Your task to perform on an android device: Go to CNN.com Image 0: 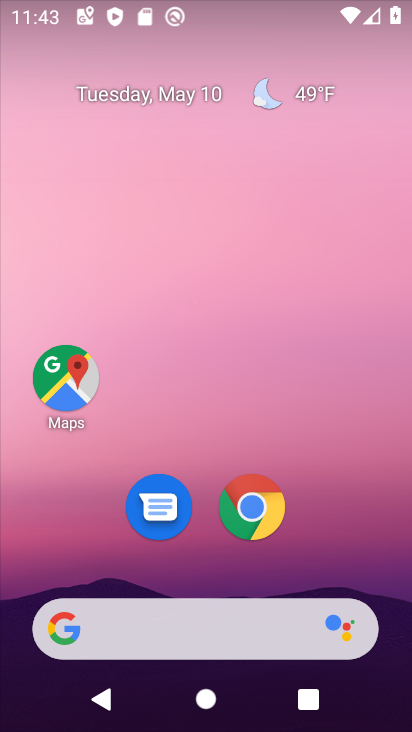
Step 0: press home button
Your task to perform on an android device: Go to CNN.com Image 1: 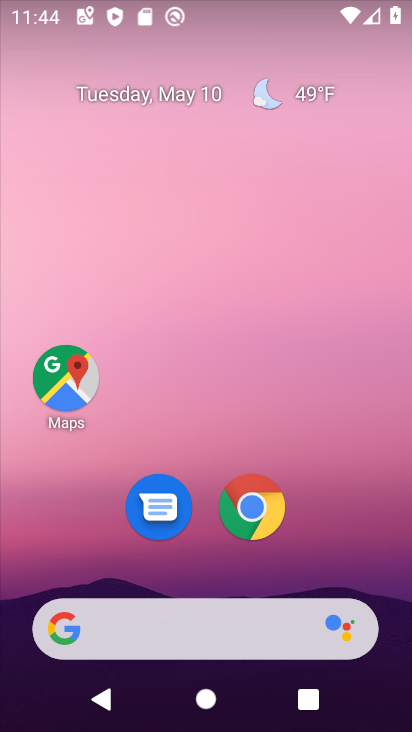
Step 1: drag from (203, 558) to (222, 64)
Your task to perform on an android device: Go to CNN.com Image 2: 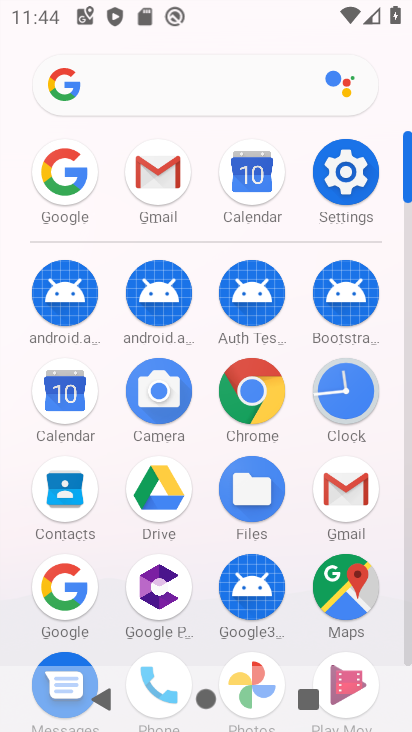
Step 2: click (67, 584)
Your task to perform on an android device: Go to CNN.com Image 3: 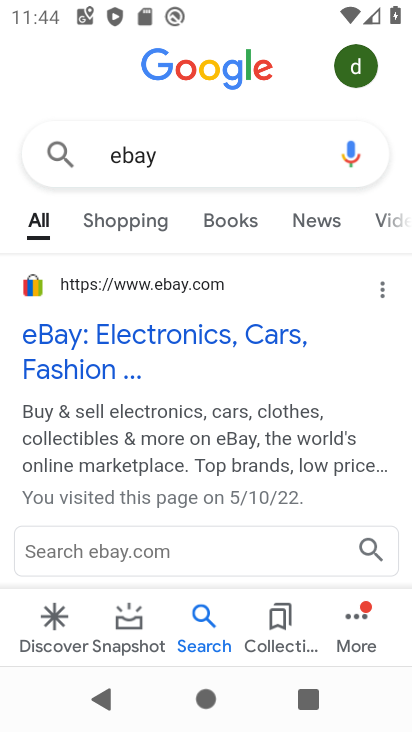
Step 3: click (207, 164)
Your task to perform on an android device: Go to CNN.com Image 4: 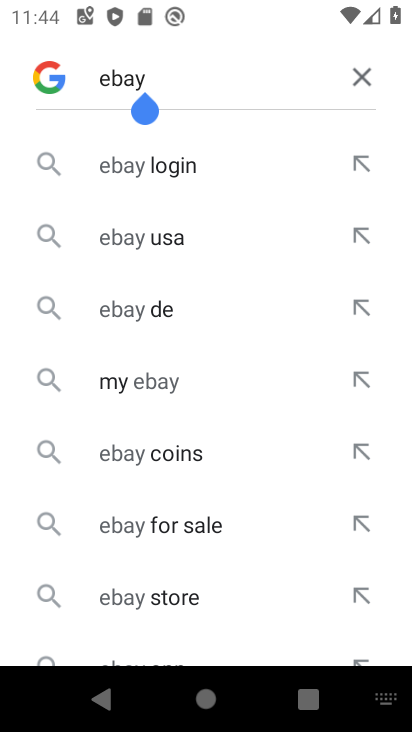
Step 4: click (359, 81)
Your task to perform on an android device: Go to CNN.com Image 5: 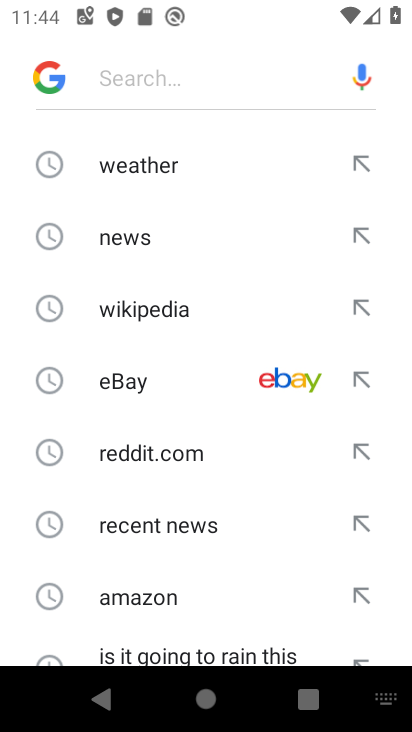
Step 5: drag from (164, 601) to (259, 95)
Your task to perform on an android device: Go to CNN.com Image 6: 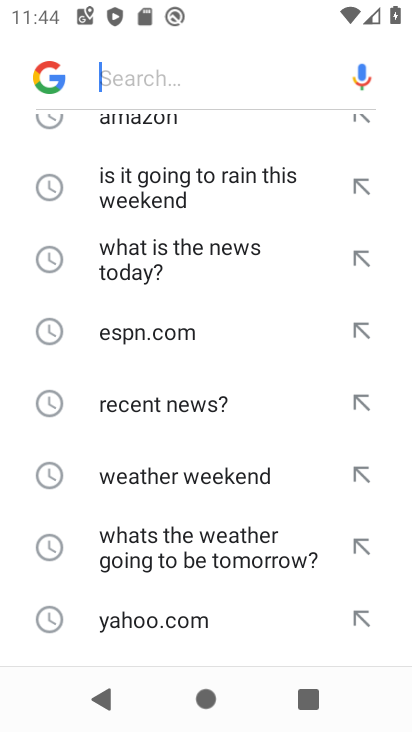
Step 6: drag from (209, 509) to (248, 161)
Your task to perform on an android device: Go to CNN.com Image 7: 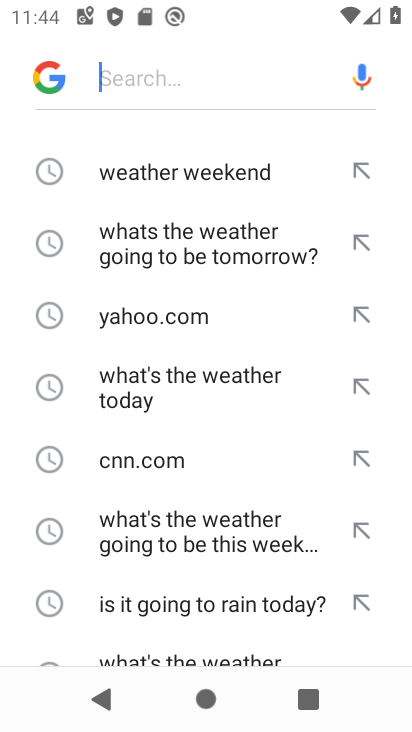
Step 7: click (144, 446)
Your task to perform on an android device: Go to CNN.com Image 8: 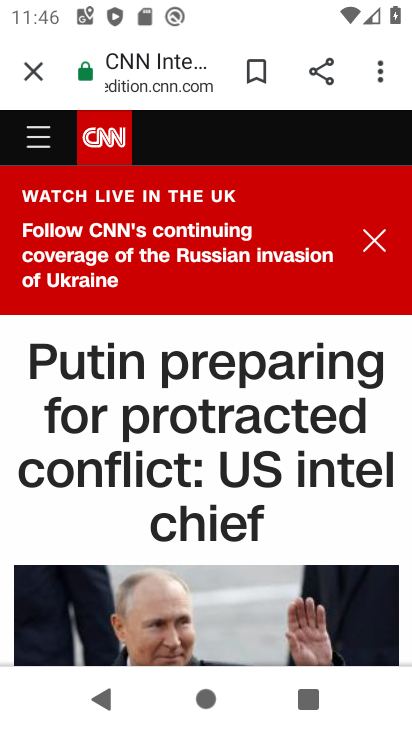
Step 8: task complete